Your task to perform on an android device: Search for hotels in Paris Image 0: 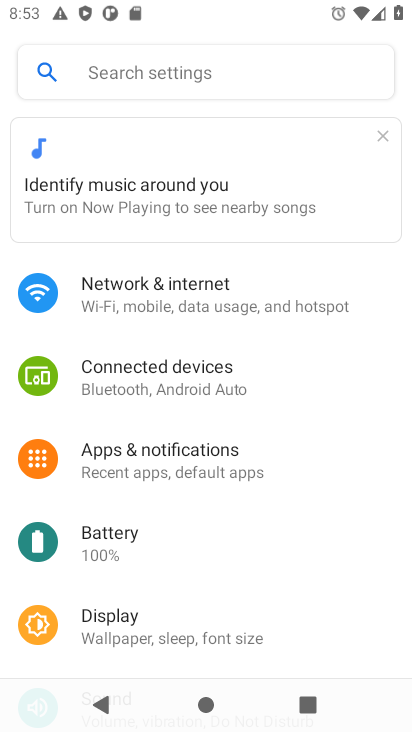
Step 0: press home button
Your task to perform on an android device: Search for hotels in Paris Image 1: 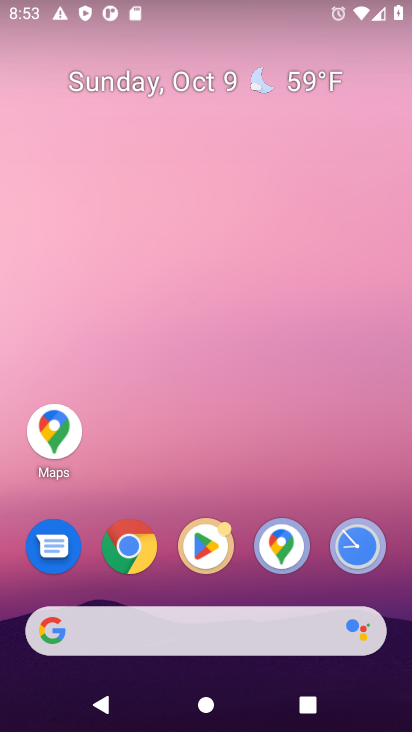
Step 1: click (137, 561)
Your task to perform on an android device: Search for hotels in Paris Image 2: 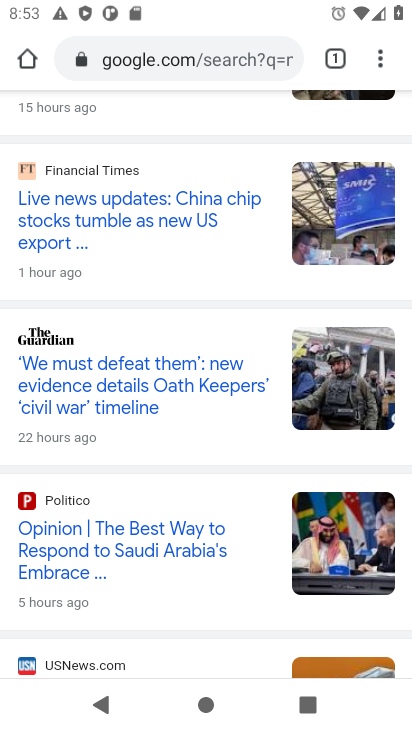
Step 2: click (172, 58)
Your task to perform on an android device: Search for hotels in Paris Image 3: 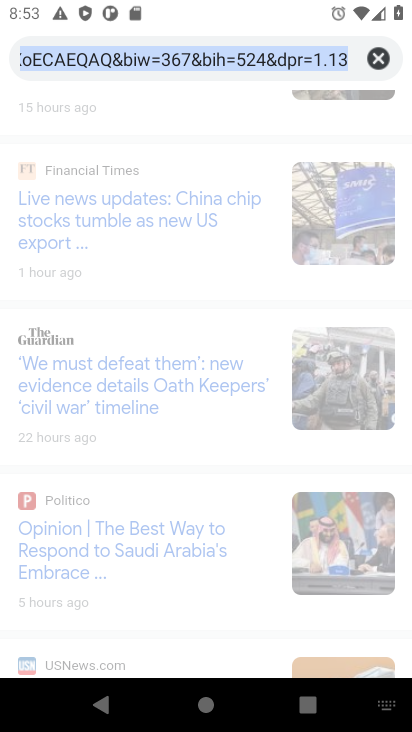
Step 3: type "hotels in paris"
Your task to perform on an android device: Search for hotels in Paris Image 4: 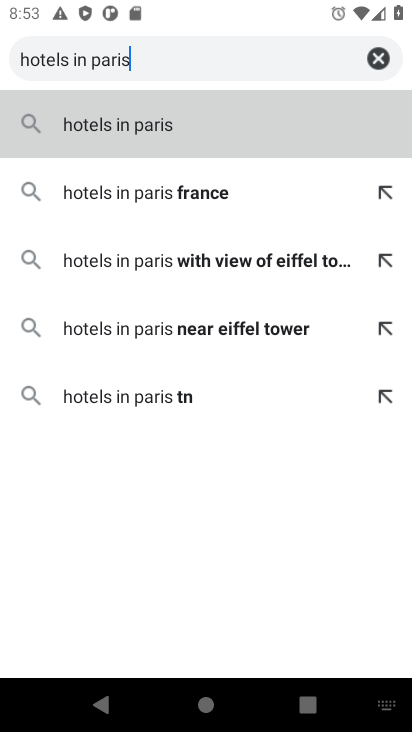
Step 4: type ""
Your task to perform on an android device: Search for hotels in Paris Image 5: 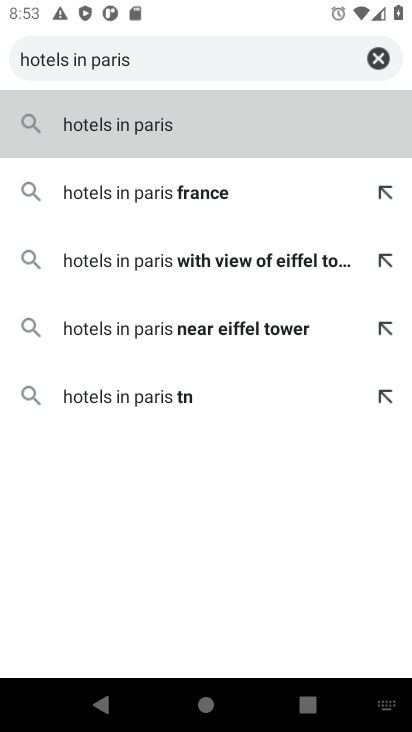
Step 5: press enter
Your task to perform on an android device: Search for hotels in Paris Image 6: 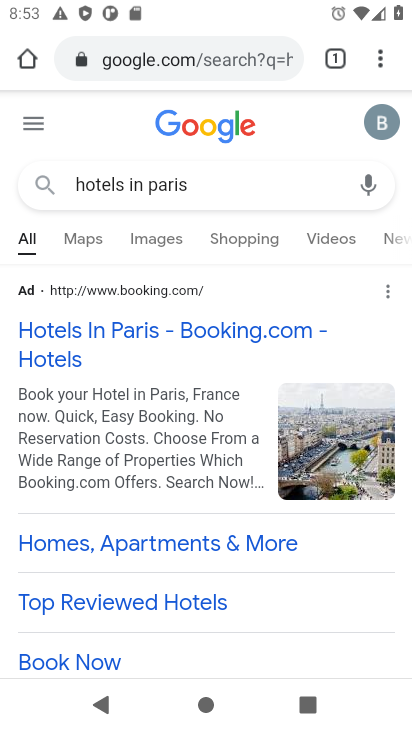
Step 6: click (39, 330)
Your task to perform on an android device: Search for hotels in Paris Image 7: 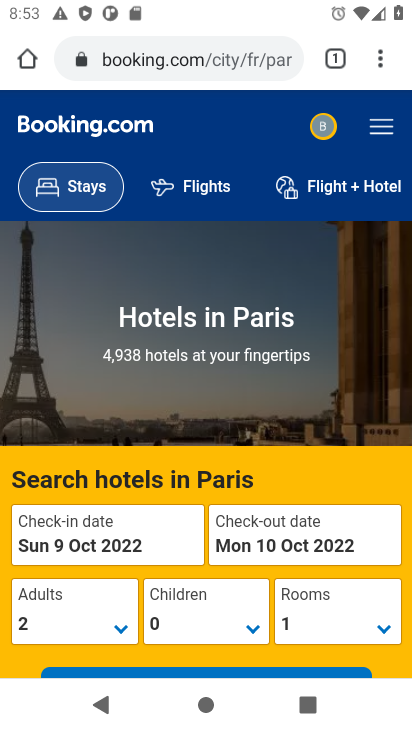
Step 7: task complete